Your task to perform on an android device: move a message to another label in the gmail app Image 0: 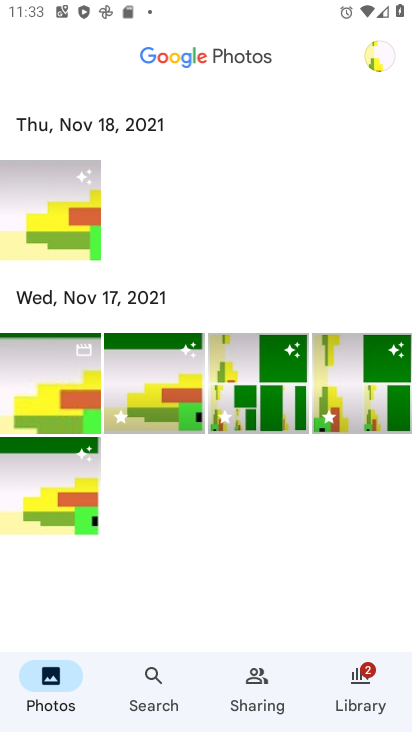
Step 0: drag from (192, 659) to (197, 265)
Your task to perform on an android device: move a message to another label in the gmail app Image 1: 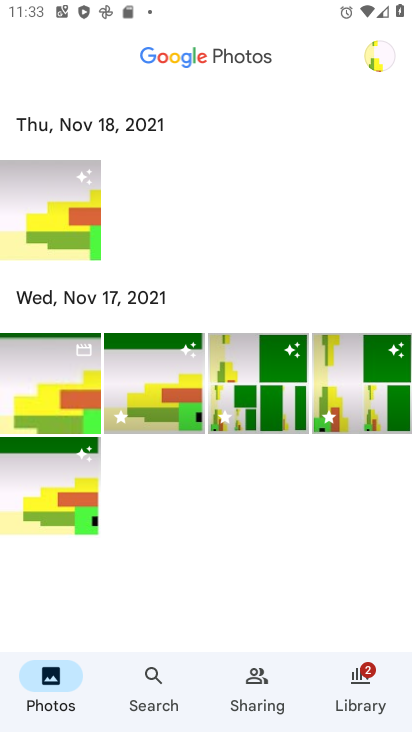
Step 1: press home button
Your task to perform on an android device: move a message to another label in the gmail app Image 2: 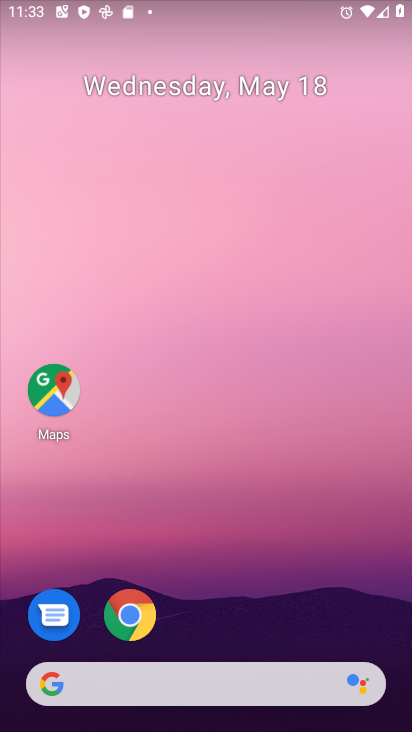
Step 2: drag from (192, 633) to (198, 233)
Your task to perform on an android device: move a message to another label in the gmail app Image 3: 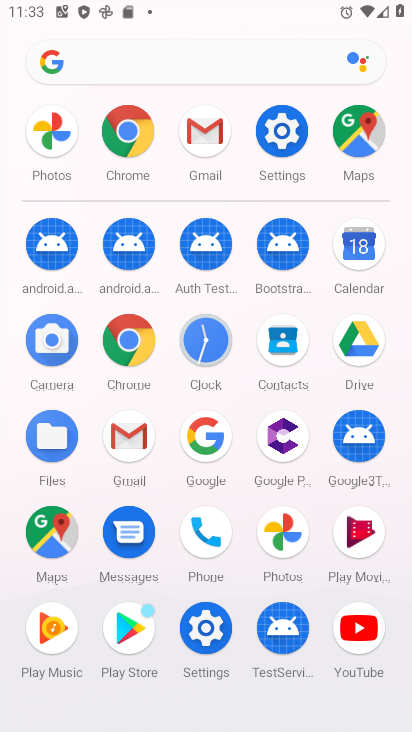
Step 3: click (205, 146)
Your task to perform on an android device: move a message to another label in the gmail app Image 4: 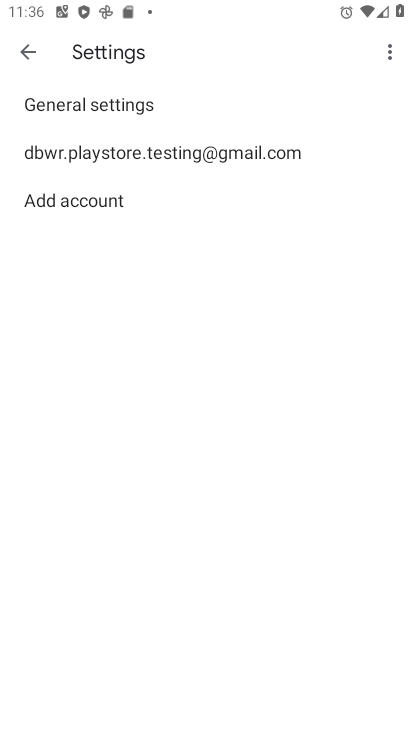
Step 4: click (27, 54)
Your task to perform on an android device: move a message to another label in the gmail app Image 5: 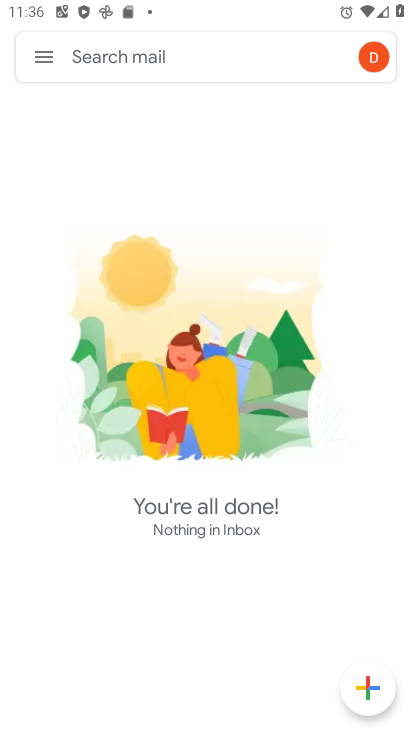
Step 5: click (28, 57)
Your task to perform on an android device: move a message to another label in the gmail app Image 6: 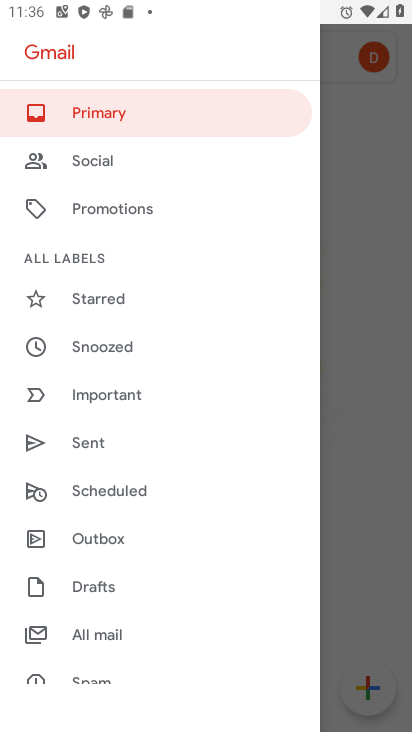
Step 6: click (366, 187)
Your task to perform on an android device: move a message to another label in the gmail app Image 7: 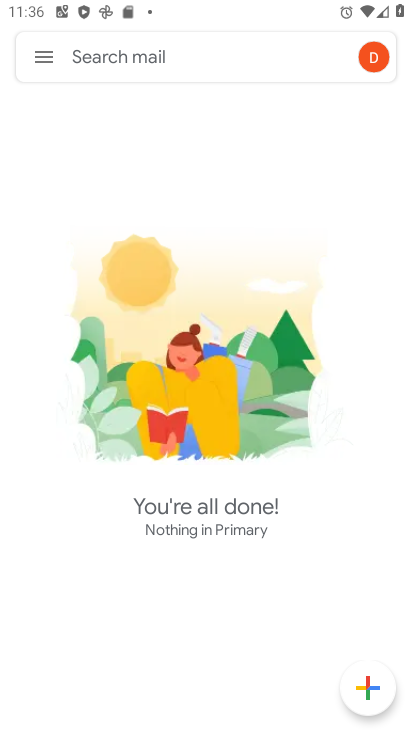
Step 7: task complete